Your task to perform on an android device: Do I have any events this weekend? Image 0: 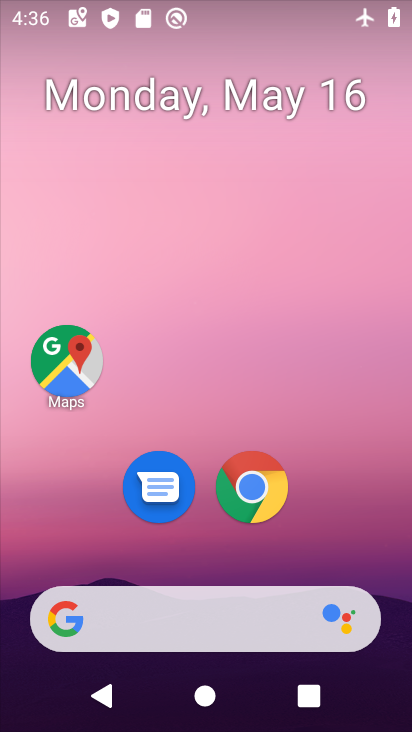
Step 0: drag from (385, 588) to (340, 121)
Your task to perform on an android device: Do I have any events this weekend? Image 1: 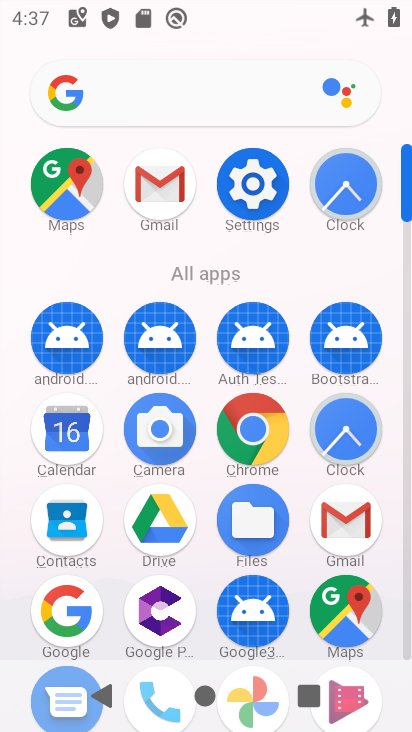
Step 1: click (408, 645)
Your task to perform on an android device: Do I have any events this weekend? Image 2: 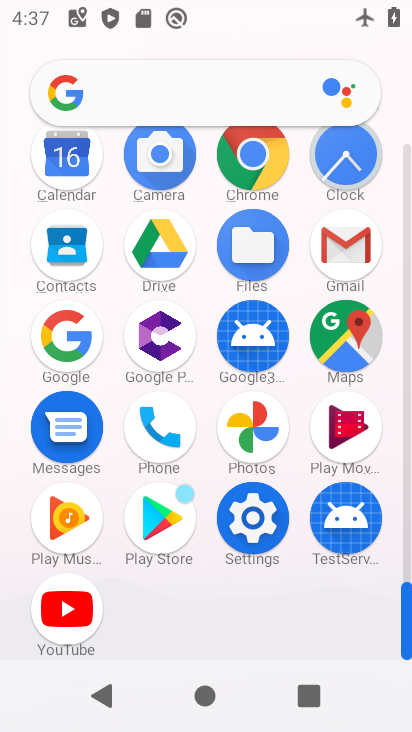
Step 2: click (63, 150)
Your task to perform on an android device: Do I have any events this weekend? Image 3: 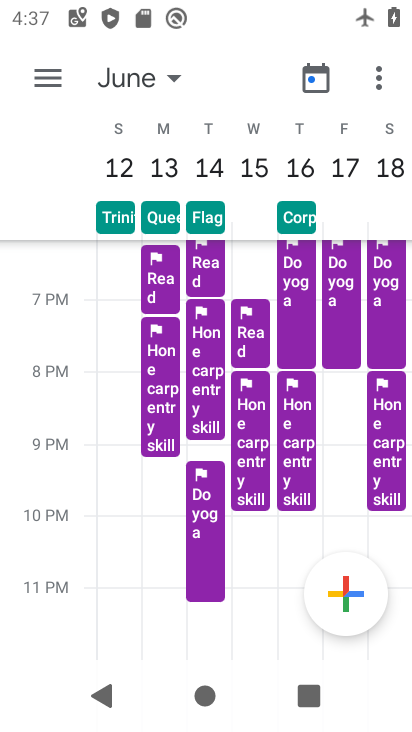
Step 3: click (171, 75)
Your task to perform on an android device: Do I have any events this weekend? Image 4: 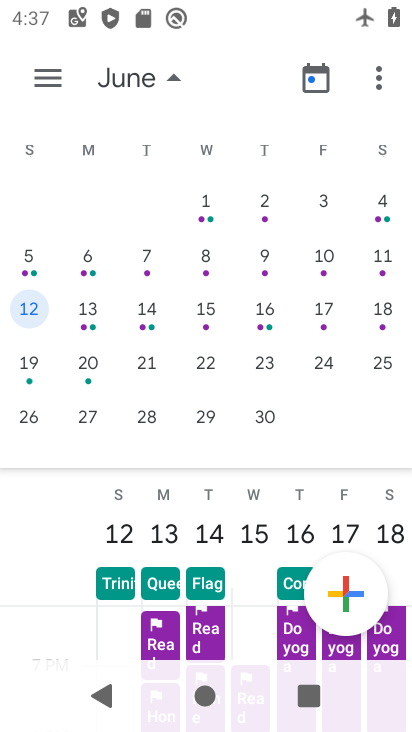
Step 4: drag from (57, 262) to (340, 287)
Your task to perform on an android device: Do I have any events this weekend? Image 5: 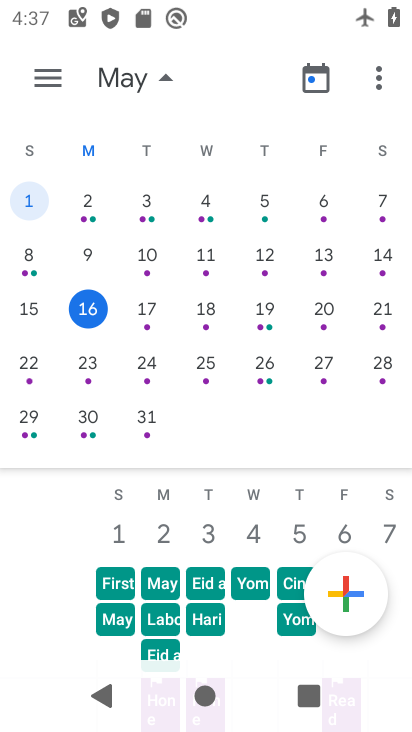
Step 5: click (86, 306)
Your task to perform on an android device: Do I have any events this weekend? Image 6: 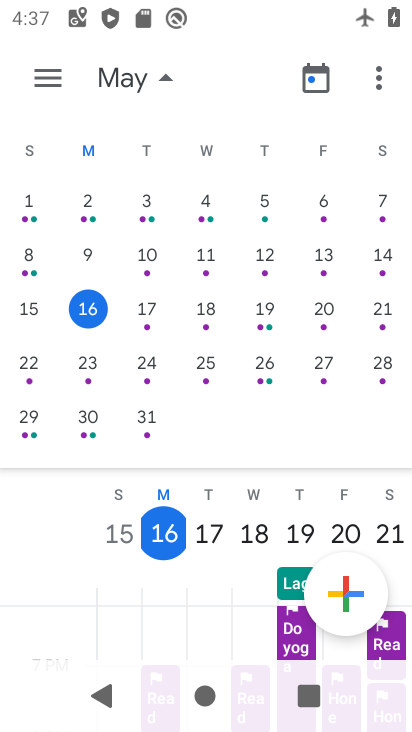
Step 6: task complete